Your task to perform on an android device: Turn off the flashlight Image 0: 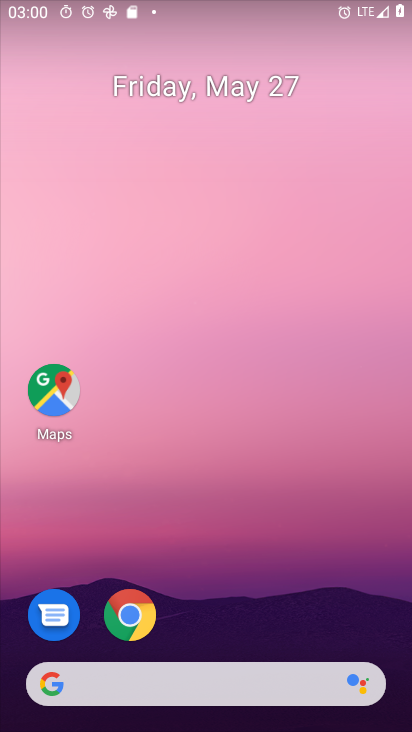
Step 0: drag from (204, 5) to (171, 454)
Your task to perform on an android device: Turn off the flashlight Image 1: 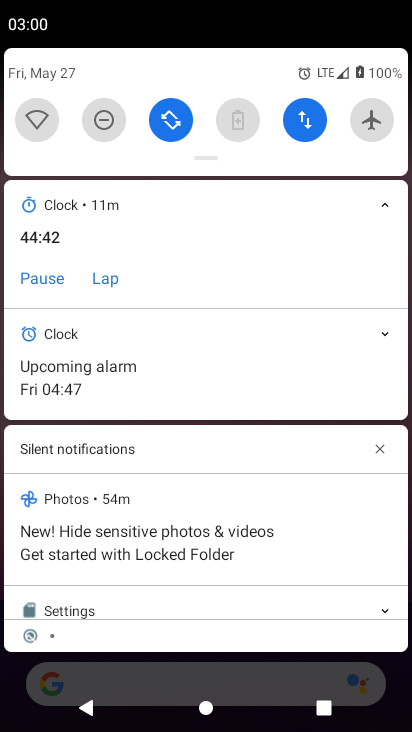
Step 1: drag from (200, 60) to (179, 451)
Your task to perform on an android device: Turn off the flashlight Image 2: 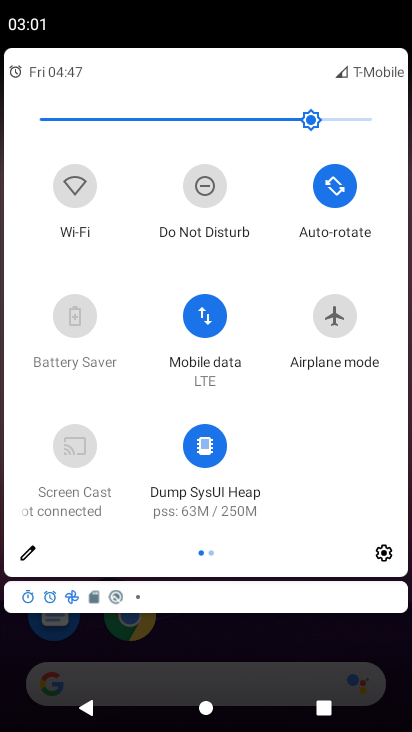
Step 2: click (28, 555)
Your task to perform on an android device: Turn off the flashlight Image 3: 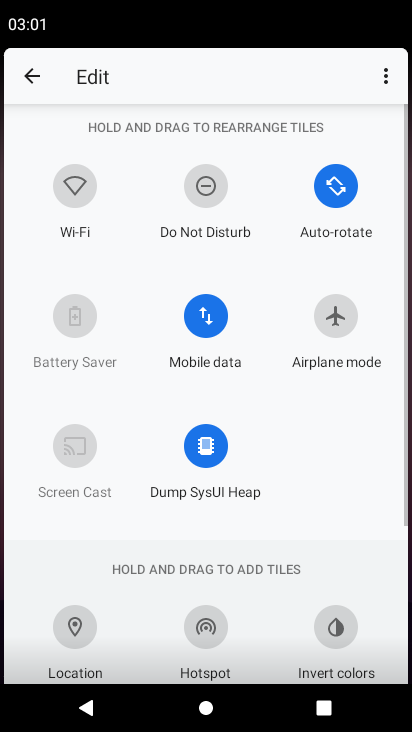
Step 3: task complete